Your task to perform on an android device: find photos in the google photos app Image 0: 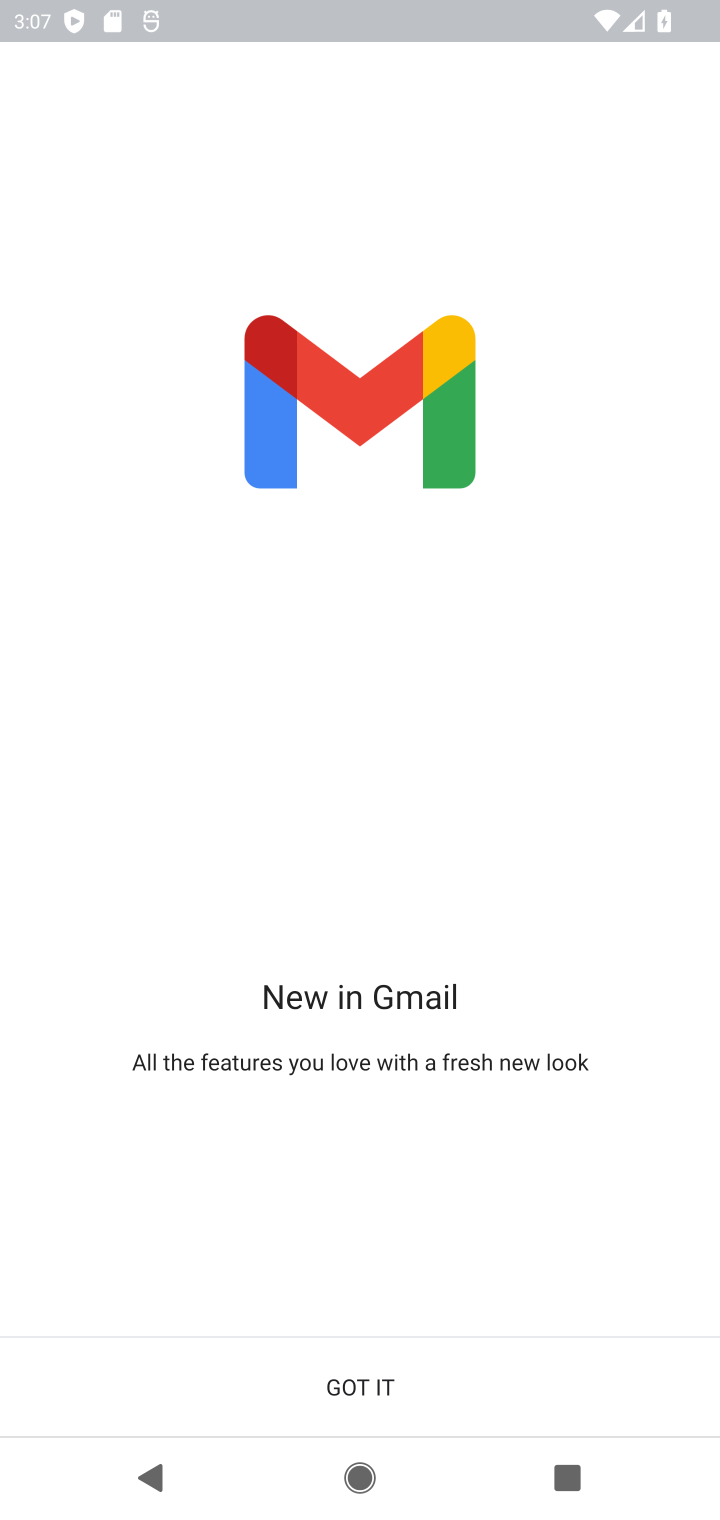
Step 0: press back button
Your task to perform on an android device: find photos in the google photos app Image 1: 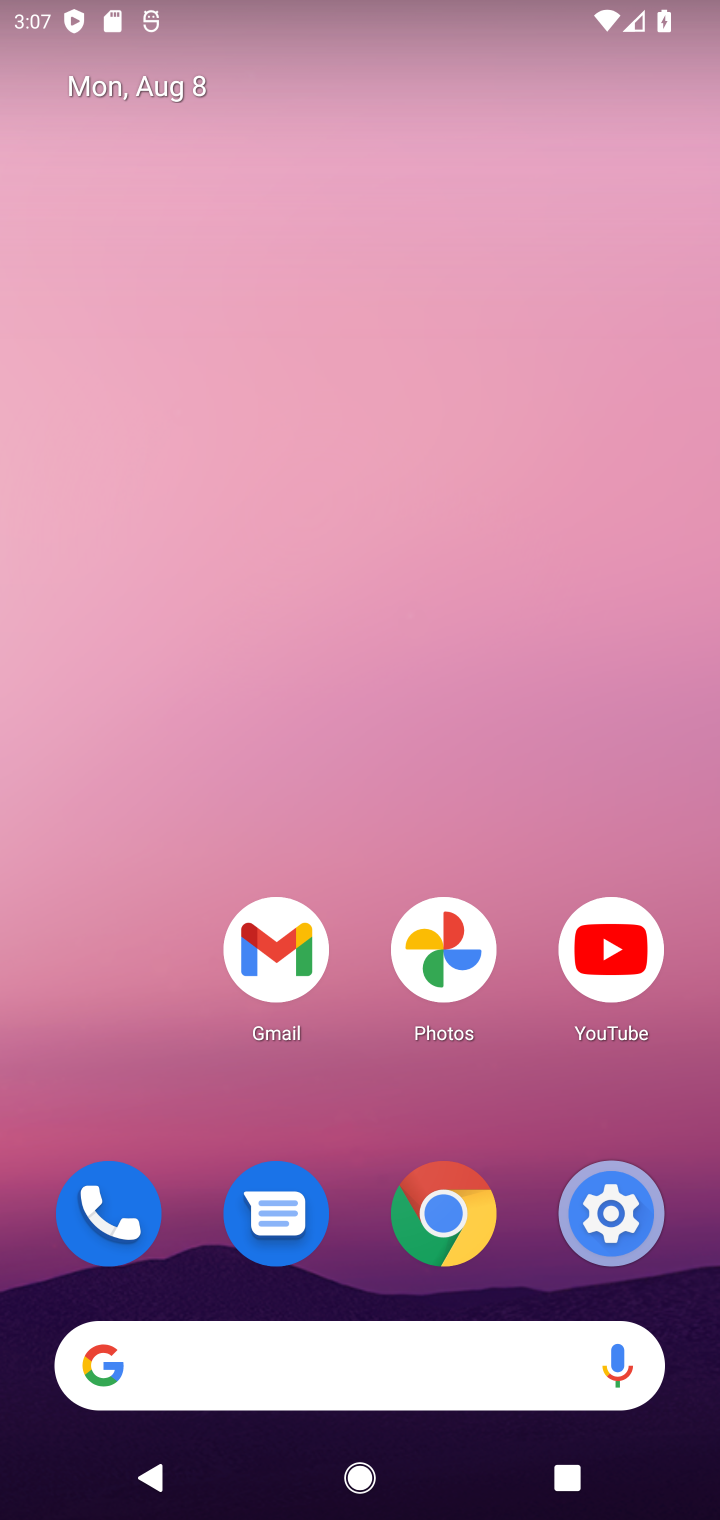
Step 1: click (440, 924)
Your task to perform on an android device: find photos in the google photos app Image 2: 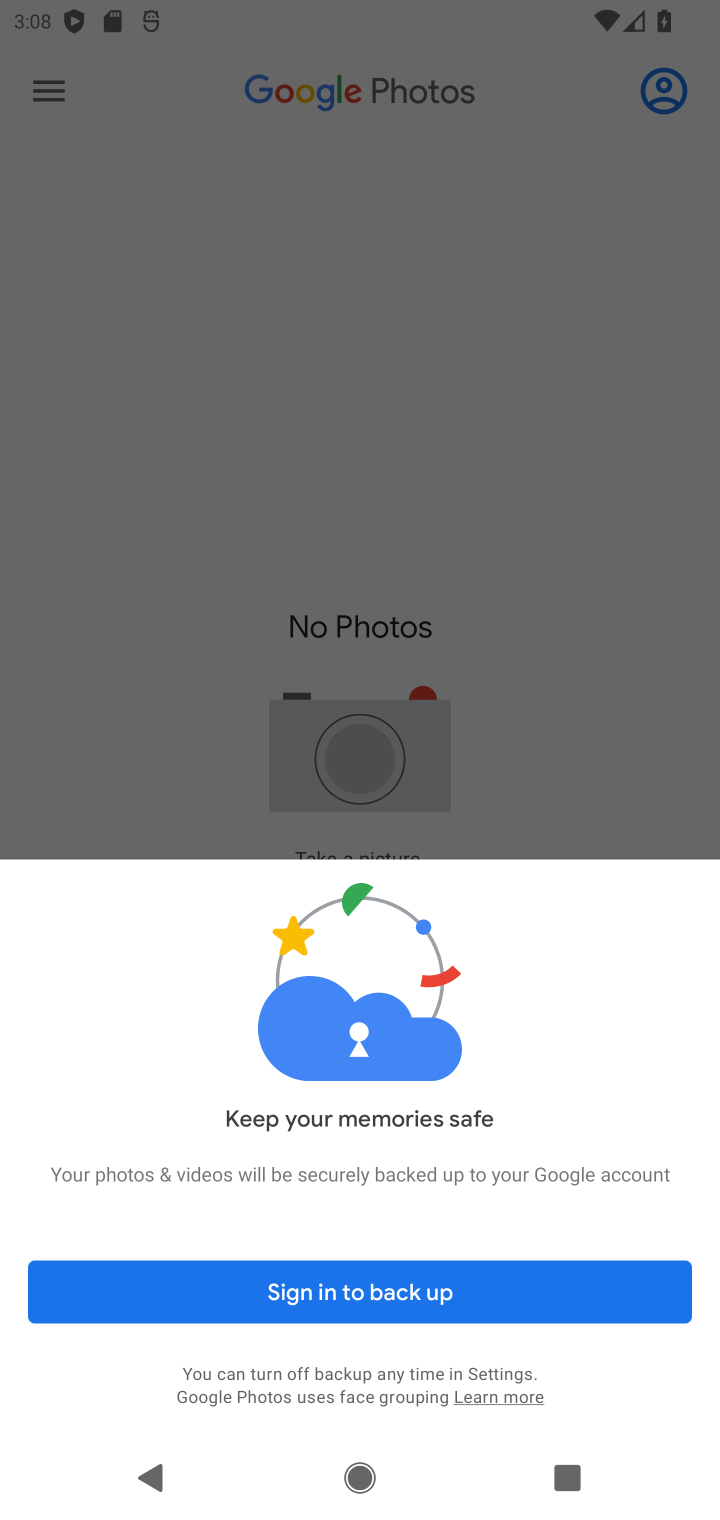
Step 2: click (461, 532)
Your task to perform on an android device: find photos in the google photos app Image 3: 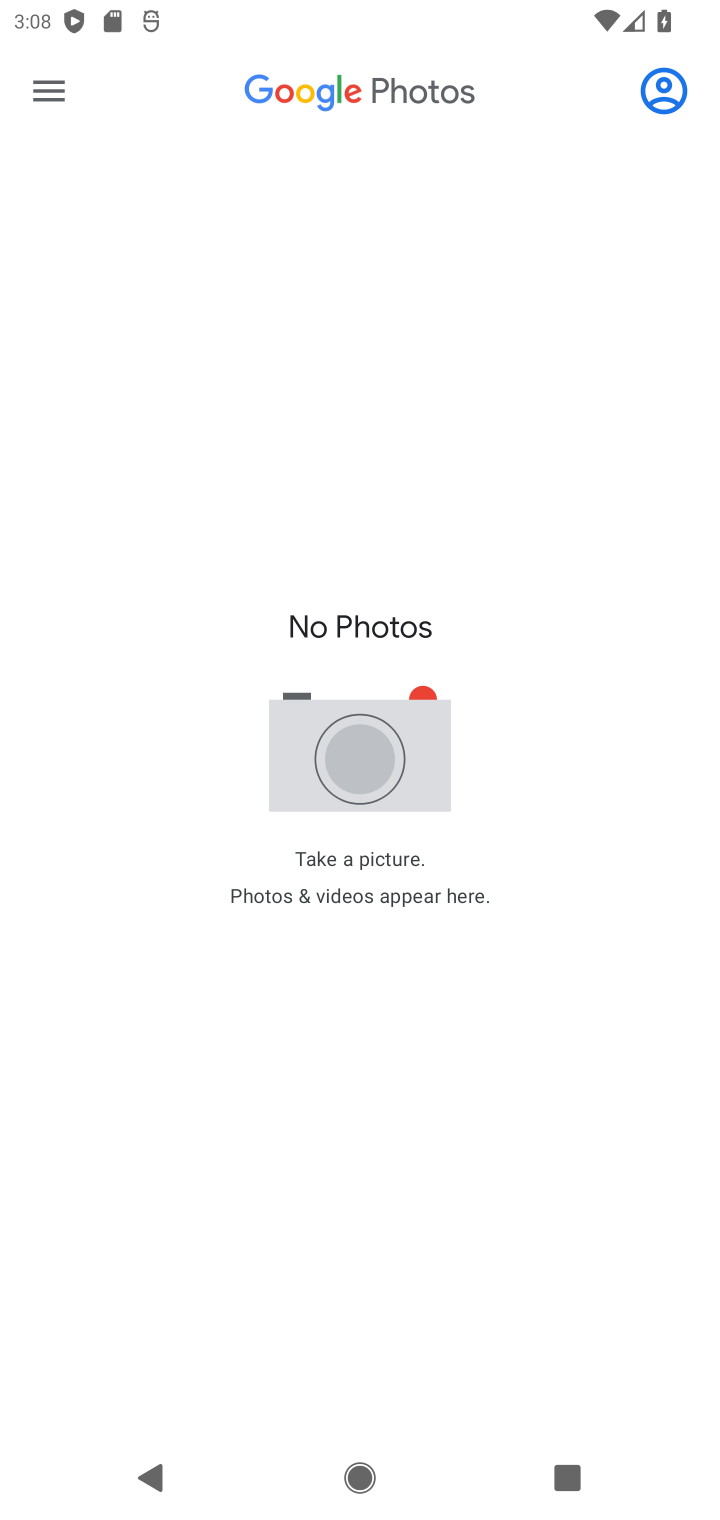
Step 3: task complete